Your task to perform on an android device: install app "Fetch Rewards" Image 0: 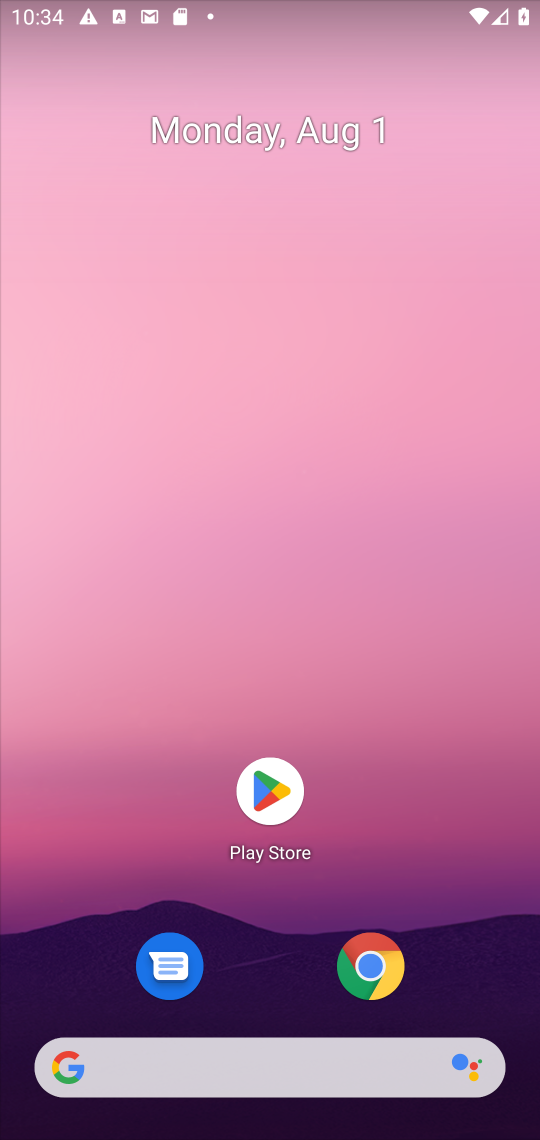
Step 0: click (275, 809)
Your task to perform on an android device: install app "Fetch Rewards" Image 1: 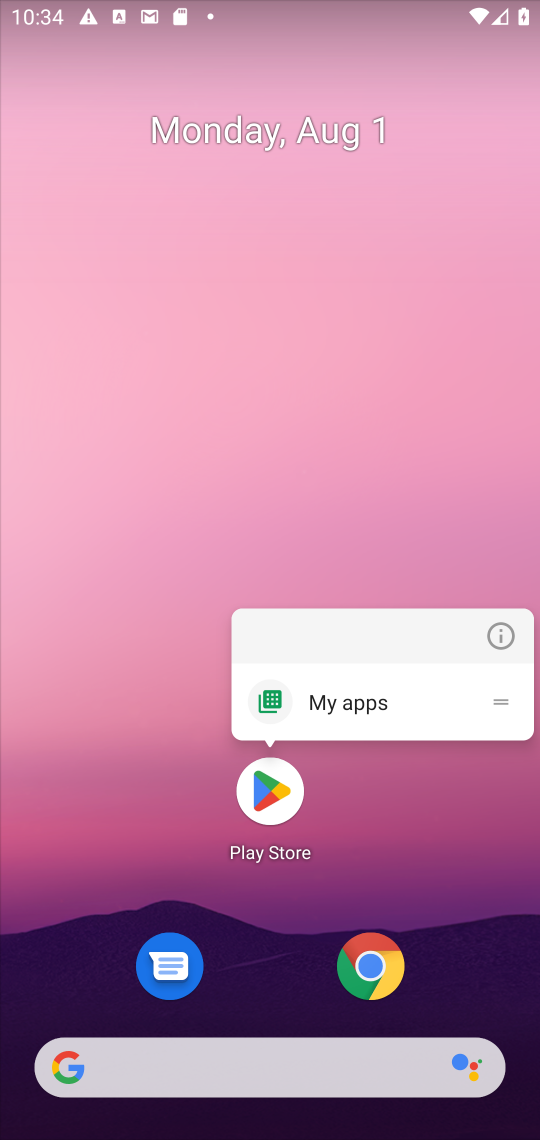
Step 1: click (279, 796)
Your task to perform on an android device: install app "Fetch Rewards" Image 2: 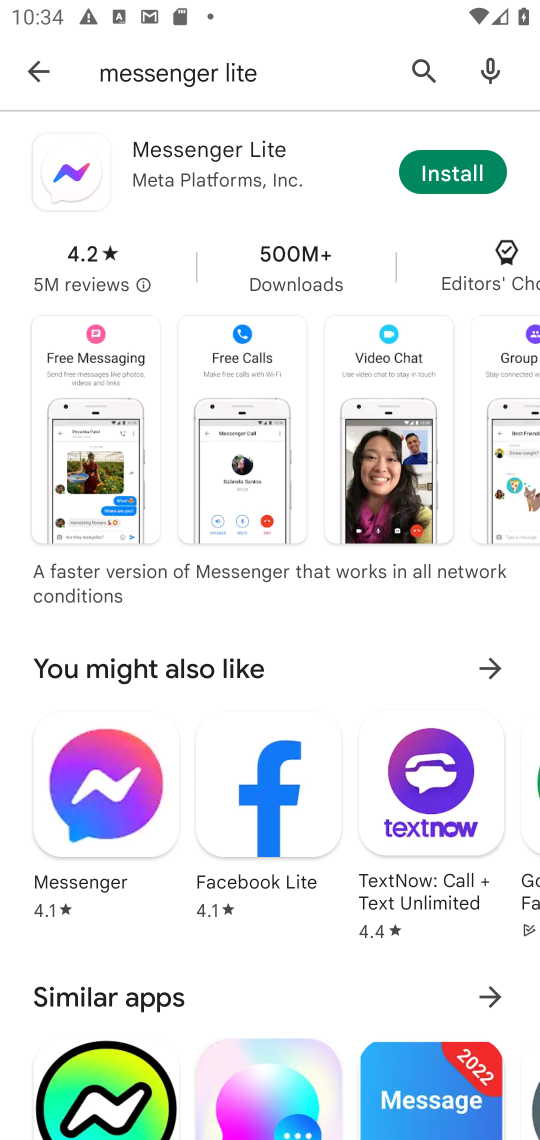
Step 2: click (425, 62)
Your task to perform on an android device: install app "Fetch Rewards" Image 3: 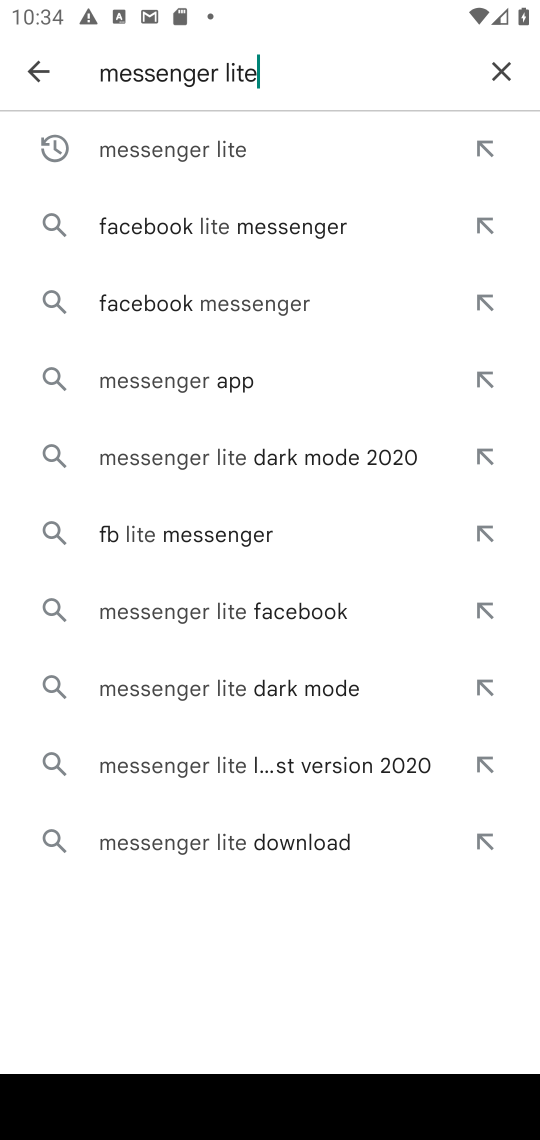
Step 3: click (514, 69)
Your task to perform on an android device: install app "Fetch Rewards" Image 4: 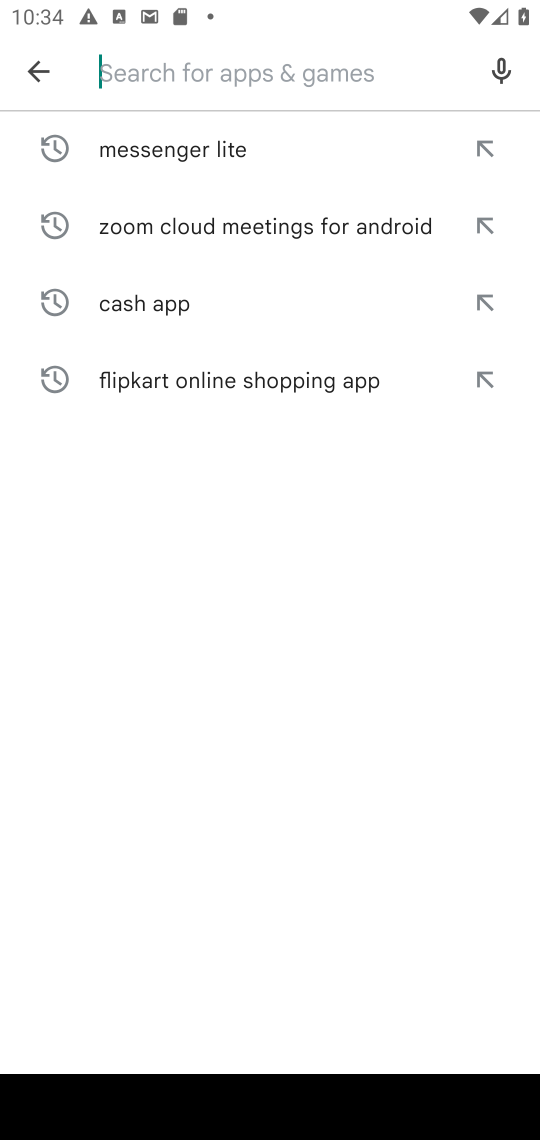
Step 4: type "Fetch Rewards"
Your task to perform on an android device: install app "Fetch Rewards" Image 5: 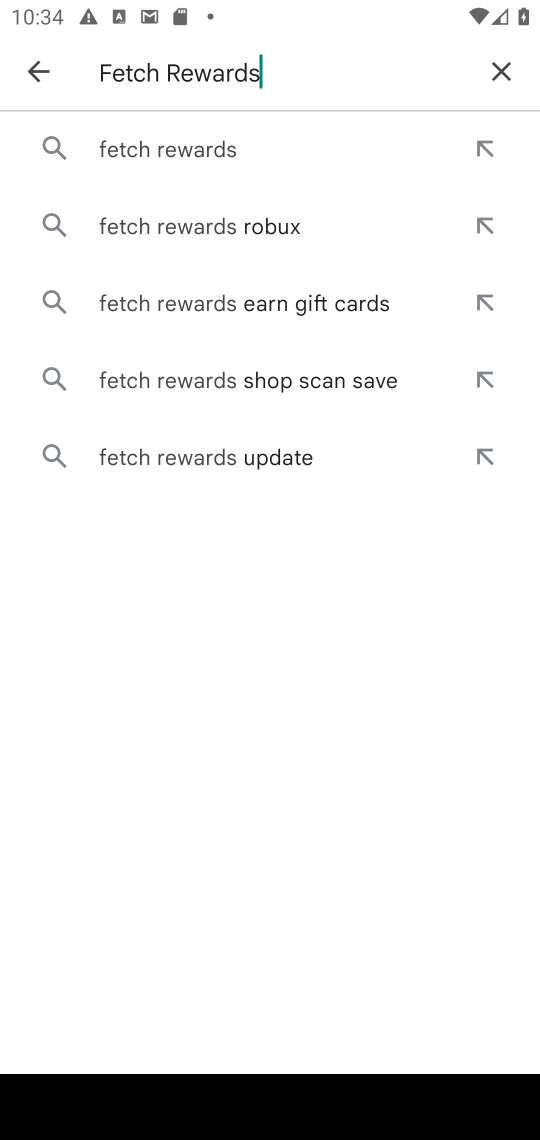
Step 5: click (187, 142)
Your task to perform on an android device: install app "Fetch Rewards" Image 6: 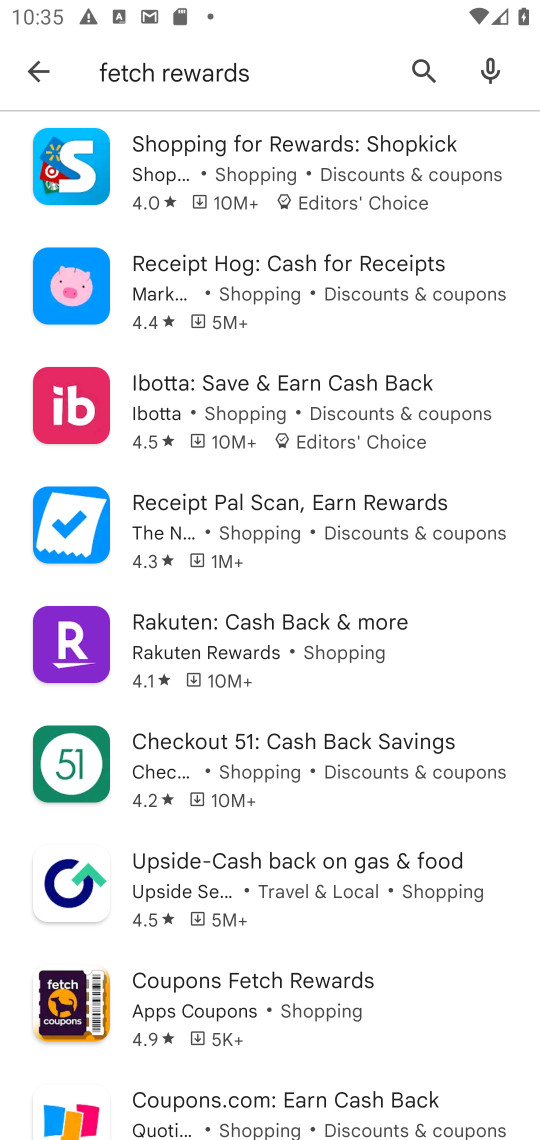
Step 6: task complete